Your task to perform on an android device: open app "Google Chat" (install if not already installed) Image 0: 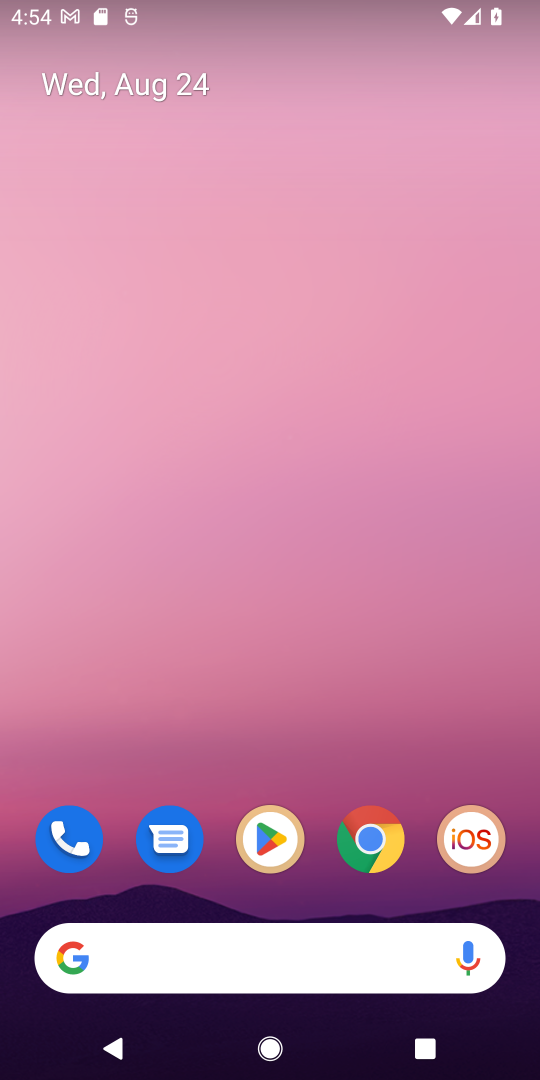
Step 0: click (269, 829)
Your task to perform on an android device: open app "Google Chat" (install if not already installed) Image 1: 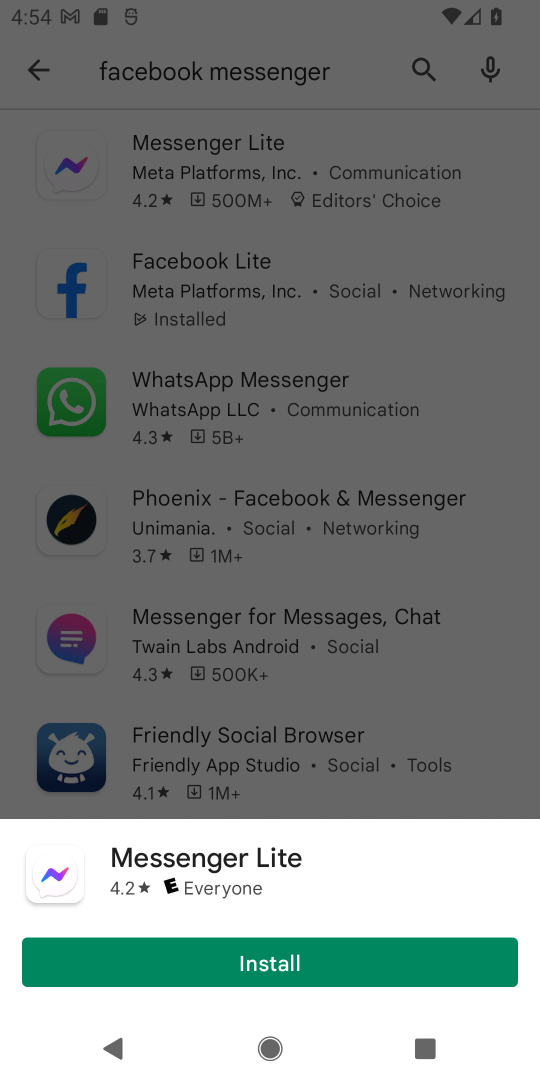
Step 1: click (428, 65)
Your task to perform on an android device: open app "Google Chat" (install if not already installed) Image 2: 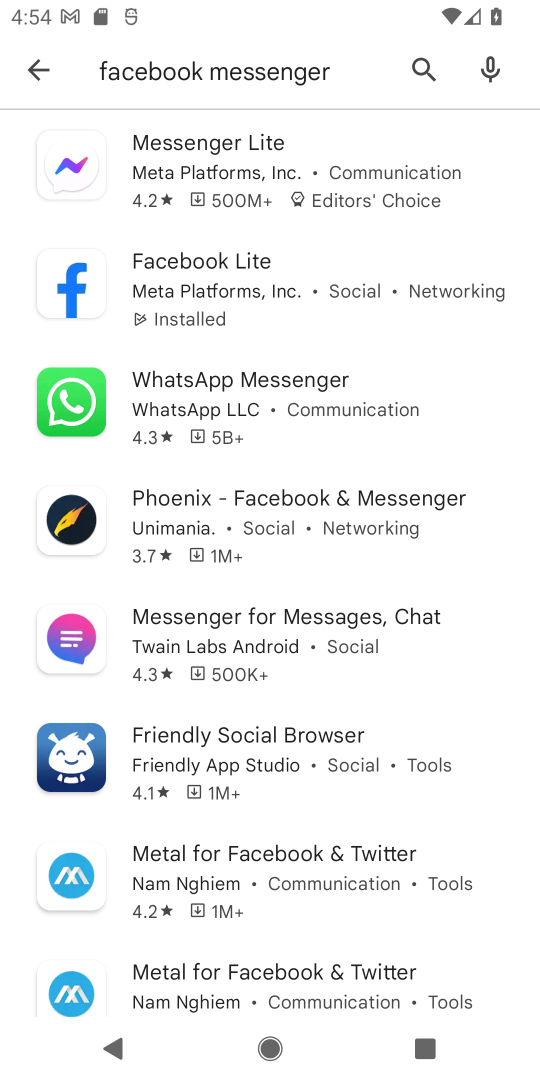
Step 2: click (428, 67)
Your task to perform on an android device: open app "Google Chat" (install if not already installed) Image 3: 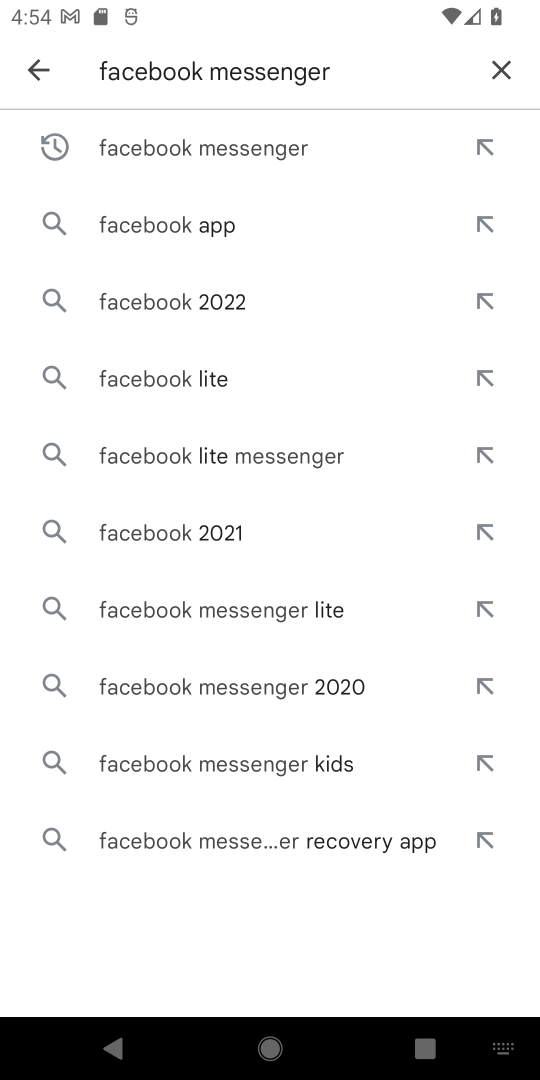
Step 3: click (504, 70)
Your task to perform on an android device: open app "Google Chat" (install if not already installed) Image 4: 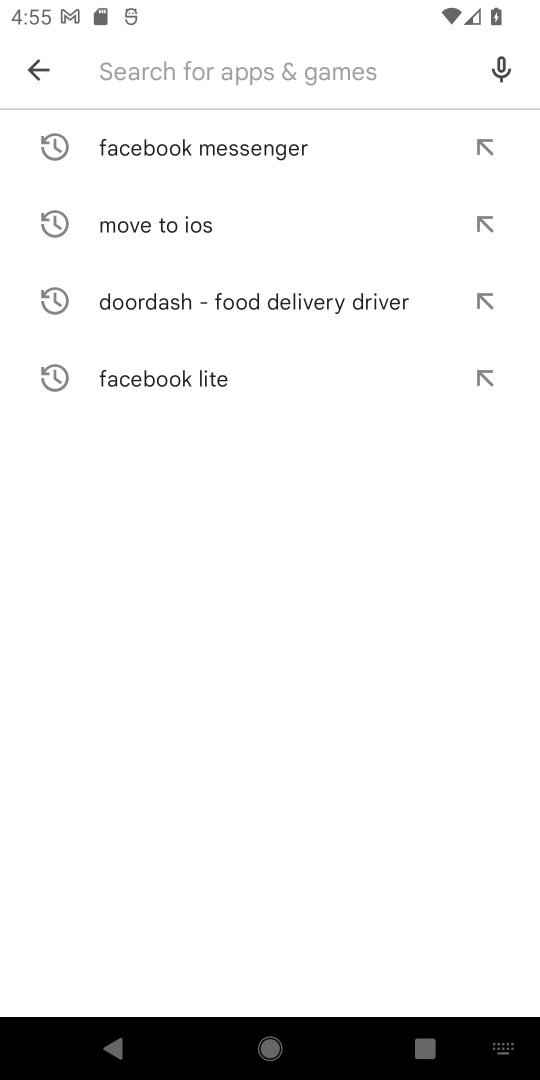
Step 4: type "Google Chat"
Your task to perform on an android device: open app "Google Chat" (install if not already installed) Image 5: 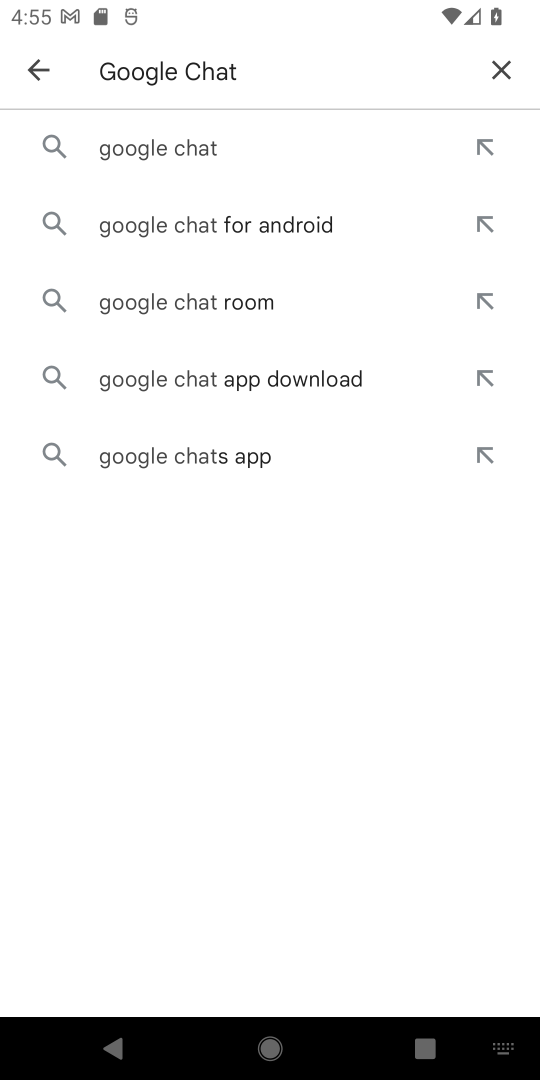
Step 5: click (150, 153)
Your task to perform on an android device: open app "Google Chat" (install if not already installed) Image 6: 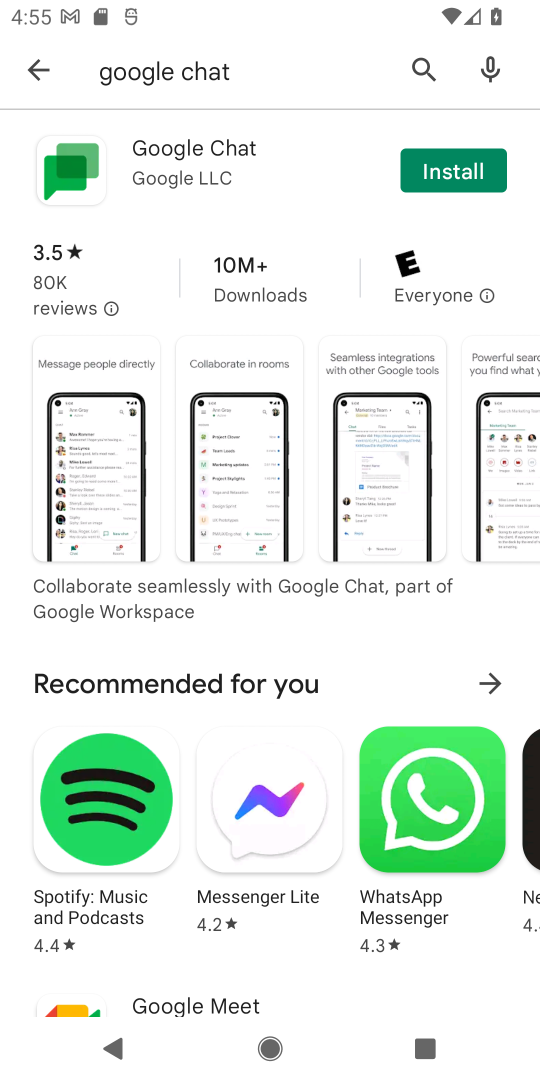
Step 6: click (459, 163)
Your task to perform on an android device: open app "Google Chat" (install if not already installed) Image 7: 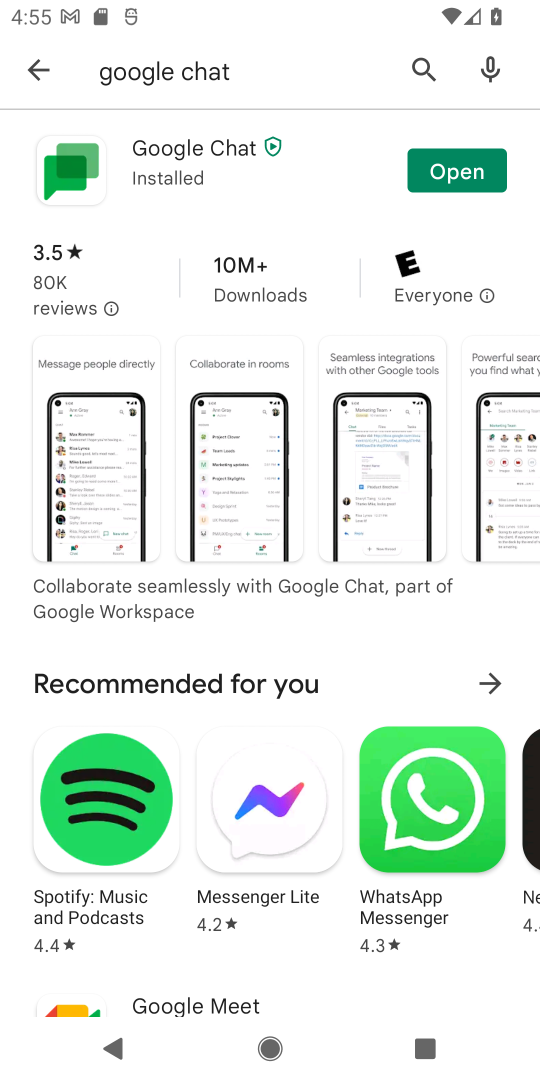
Step 7: click (459, 173)
Your task to perform on an android device: open app "Google Chat" (install if not already installed) Image 8: 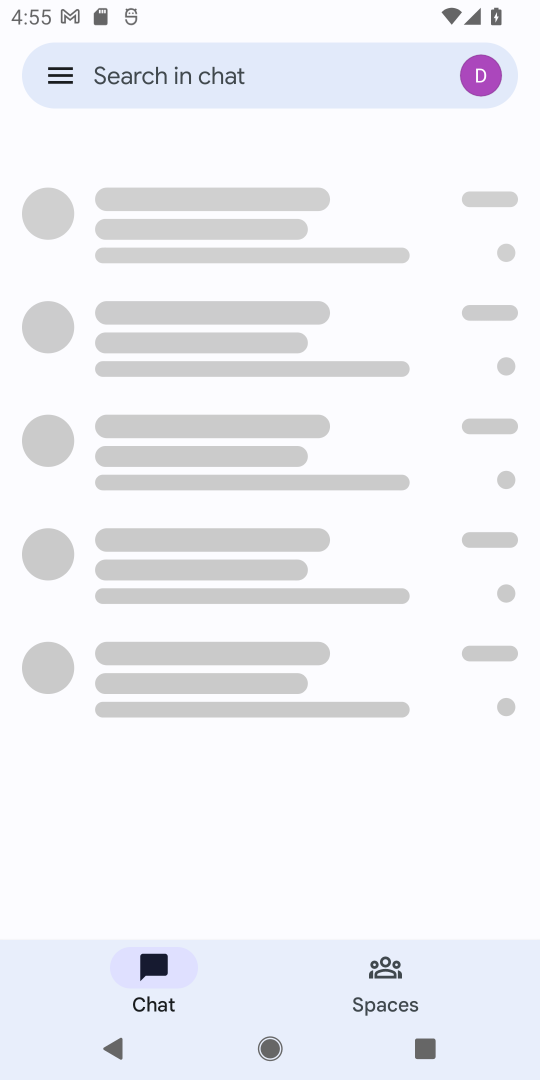
Step 8: task complete